Your task to perform on an android device: manage bookmarks in the chrome app Image 0: 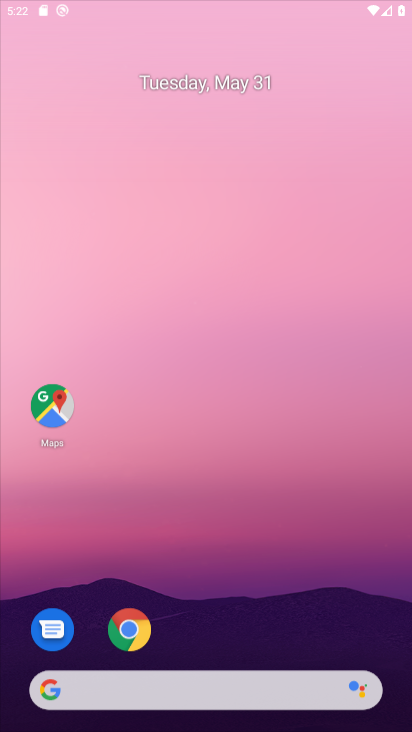
Step 0: drag from (195, 511) to (194, 146)
Your task to perform on an android device: manage bookmarks in the chrome app Image 1: 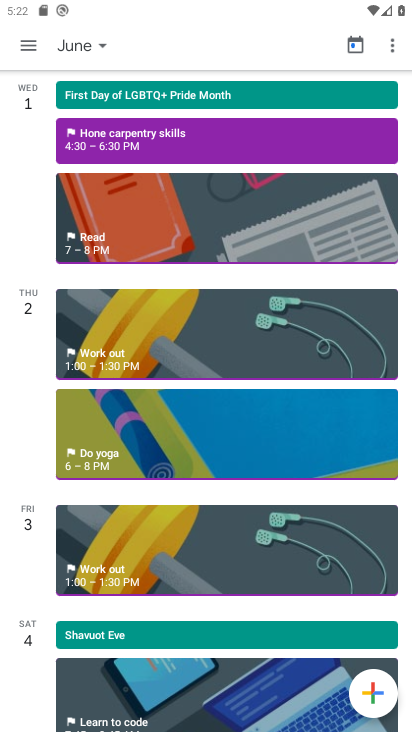
Step 1: press home button
Your task to perform on an android device: manage bookmarks in the chrome app Image 2: 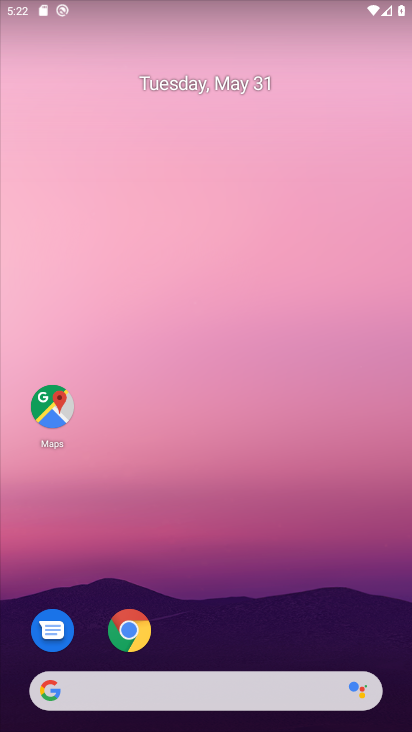
Step 2: click (120, 623)
Your task to perform on an android device: manage bookmarks in the chrome app Image 3: 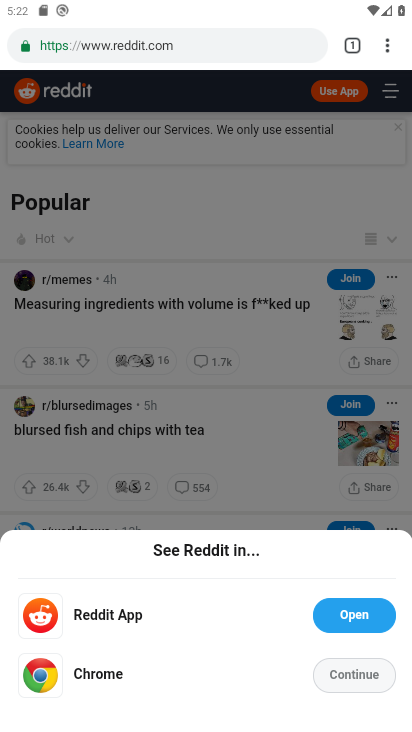
Step 3: click (386, 45)
Your task to perform on an android device: manage bookmarks in the chrome app Image 4: 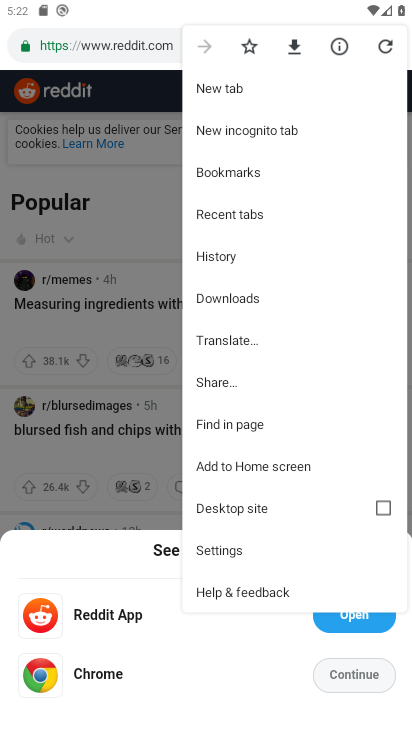
Step 4: click (281, 159)
Your task to perform on an android device: manage bookmarks in the chrome app Image 5: 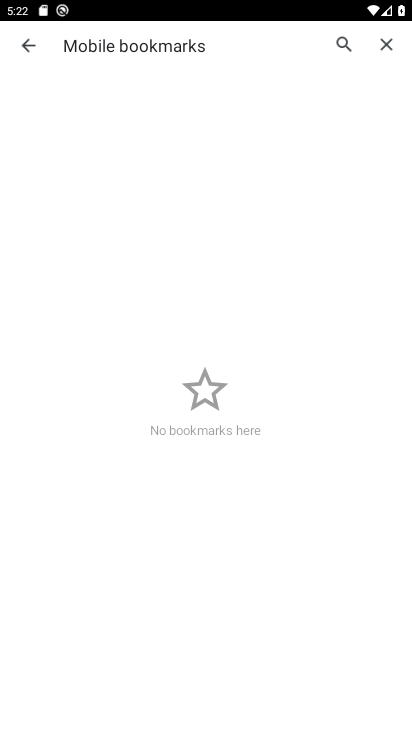
Step 5: task complete